Your task to perform on an android device: Turn off the flashlight Image 0: 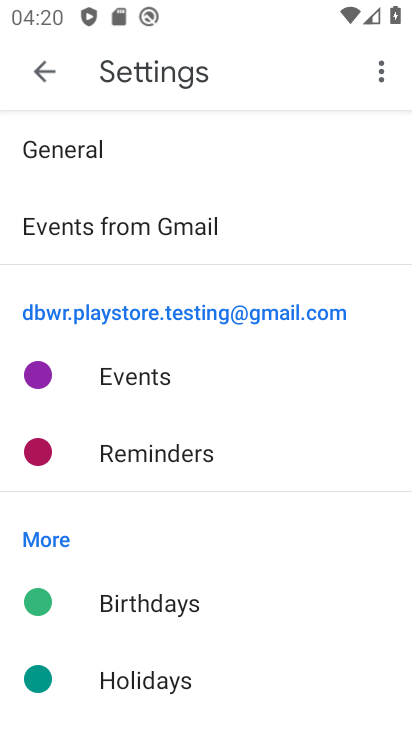
Step 0: press home button
Your task to perform on an android device: Turn off the flashlight Image 1: 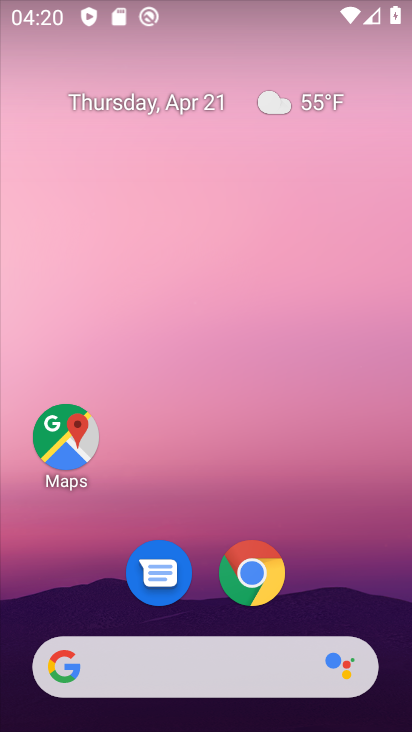
Step 1: drag from (327, 618) to (259, 10)
Your task to perform on an android device: Turn off the flashlight Image 2: 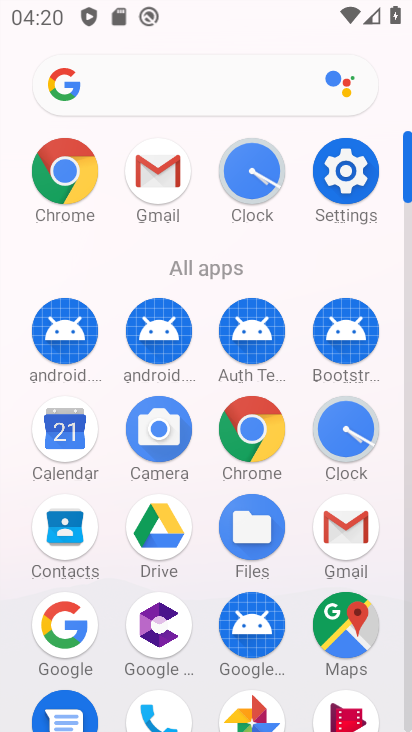
Step 2: drag from (294, 599) to (288, 106)
Your task to perform on an android device: Turn off the flashlight Image 3: 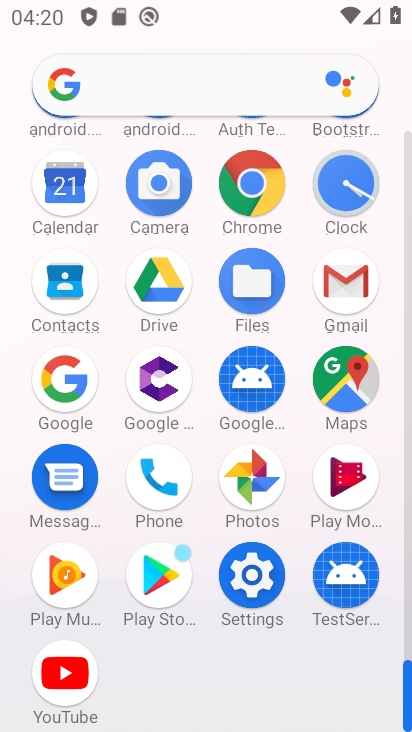
Step 3: click (261, 573)
Your task to perform on an android device: Turn off the flashlight Image 4: 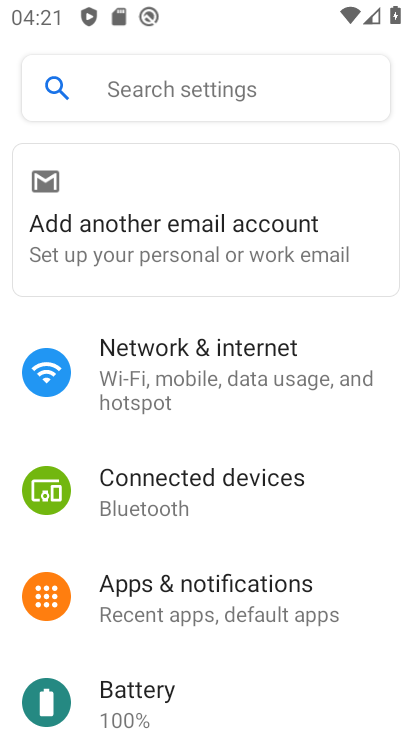
Step 4: task complete